Your task to perform on an android device: Check the news Image 0: 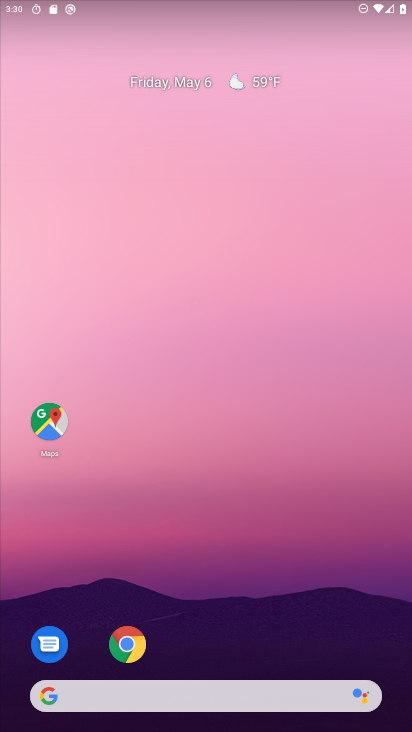
Step 0: drag from (4, 284) to (408, 304)
Your task to perform on an android device: Check the news Image 1: 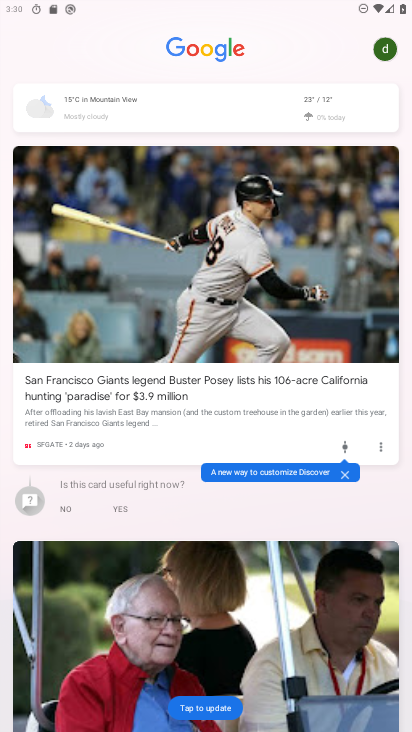
Step 1: task complete